Your task to perform on an android device: open wifi settings Image 0: 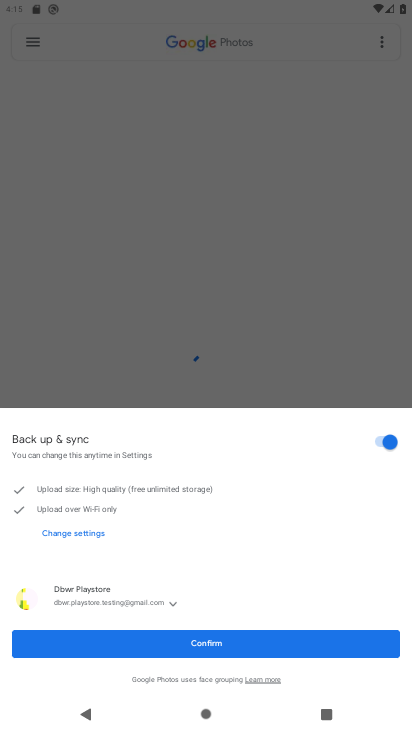
Step 0: press home button
Your task to perform on an android device: open wifi settings Image 1: 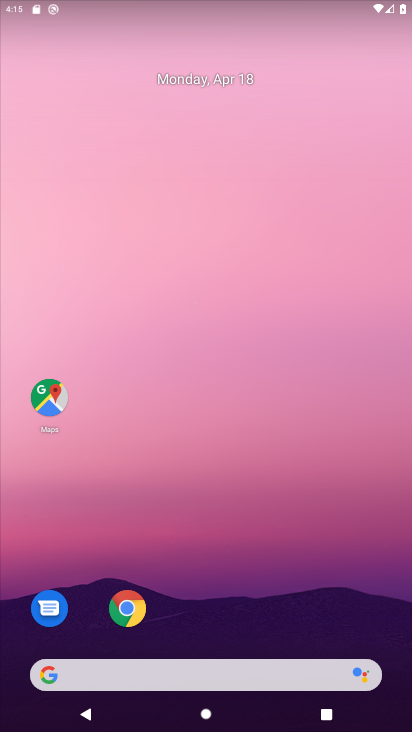
Step 1: drag from (260, 349) to (273, 77)
Your task to perform on an android device: open wifi settings Image 2: 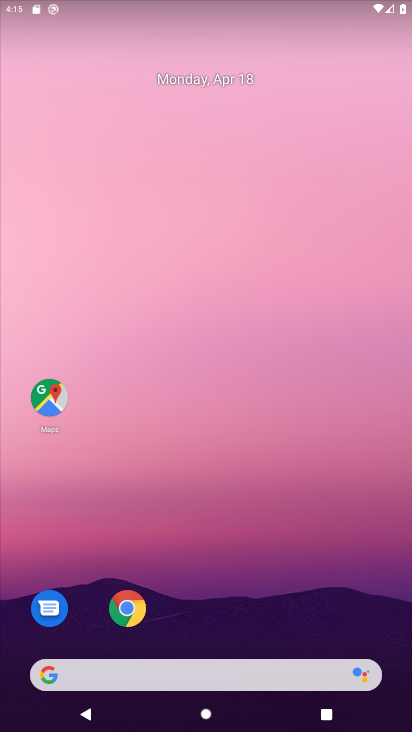
Step 2: drag from (227, 657) to (227, 337)
Your task to perform on an android device: open wifi settings Image 3: 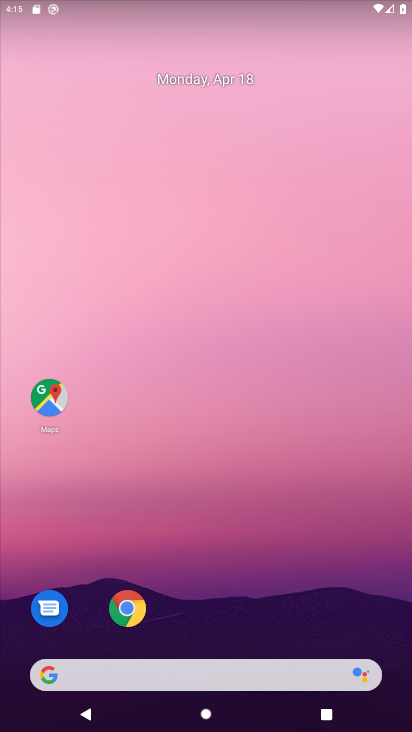
Step 3: drag from (205, 657) to (213, 258)
Your task to perform on an android device: open wifi settings Image 4: 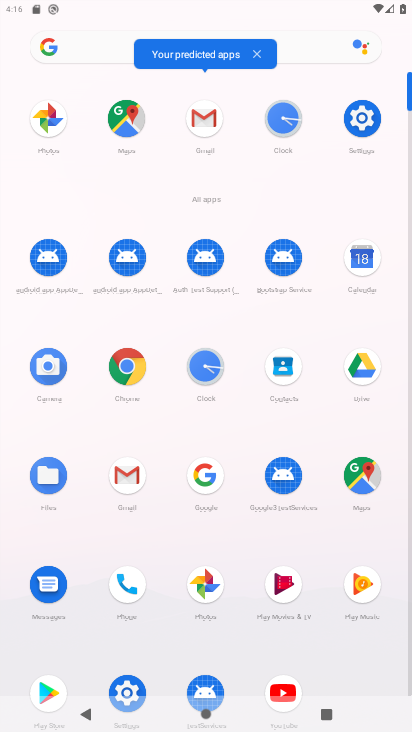
Step 4: click (368, 121)
Your task to perform on an android device: open wifi settings Image 5: 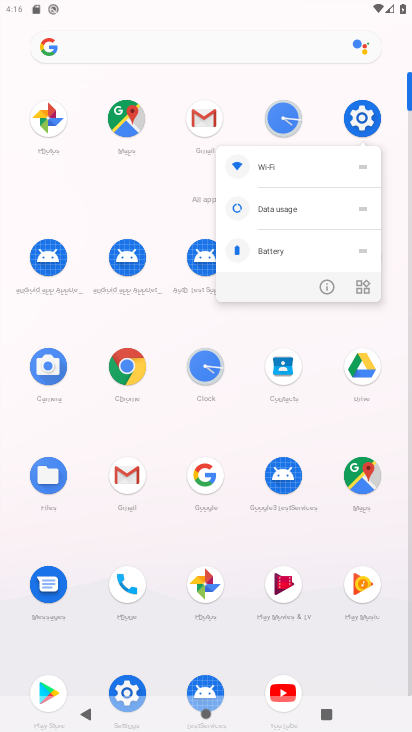
Step 5: click (369, 119)
Your task to perform on an android device: open wifi settings Image 6: 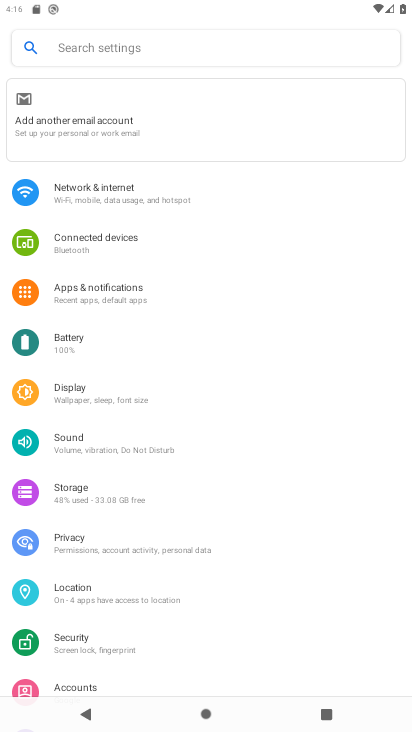
Step 6: click (139, 188)
Your task to perform on an android device: open wifi settings Image 7: 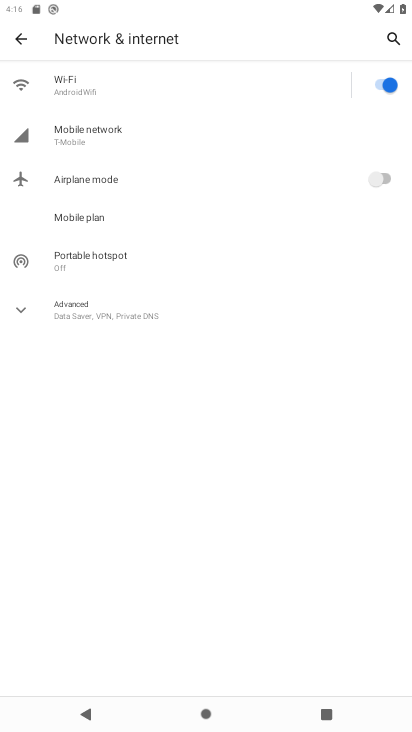
Step 7: click (92, 84)
Your task to perform on an android device: open wifi settings Image 8: 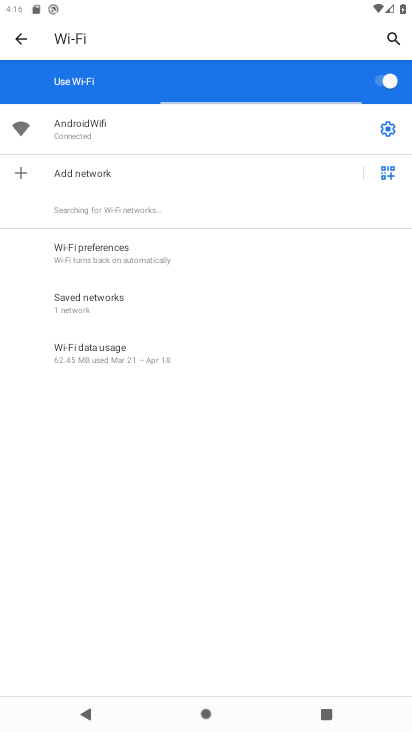
Step 8: click (390, 122)
Your task to perform on an android device: open wifi settings Image 9: 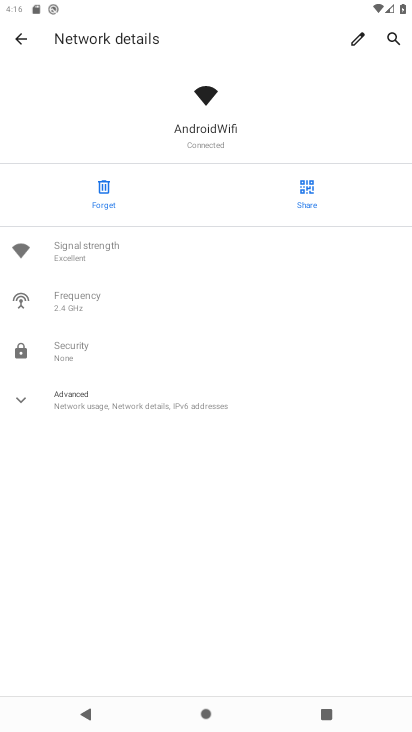
Step 9: click (149, 402)
Your task to perform on an android device: open wifi settings Image 10: 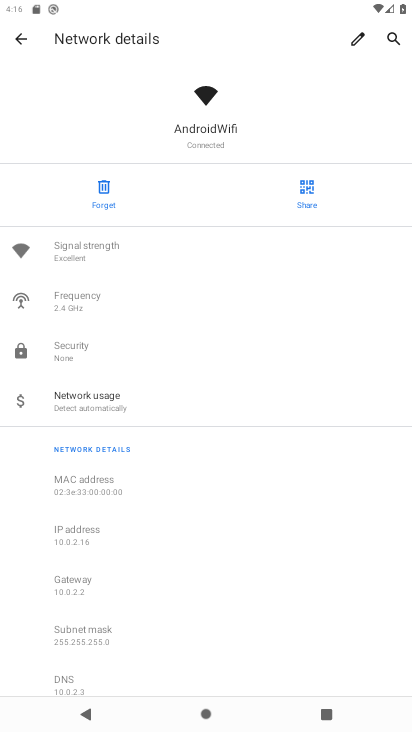
Step 10: task complete